Your task to perform on an android device: Open location settings Image 0: 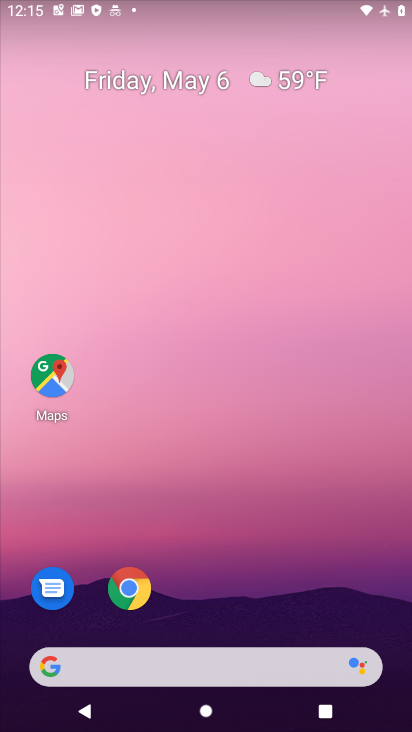
Step 0: drag from (209, 668) to (319, 336)
Your task to perform on an android device: Open location settings Image 1: 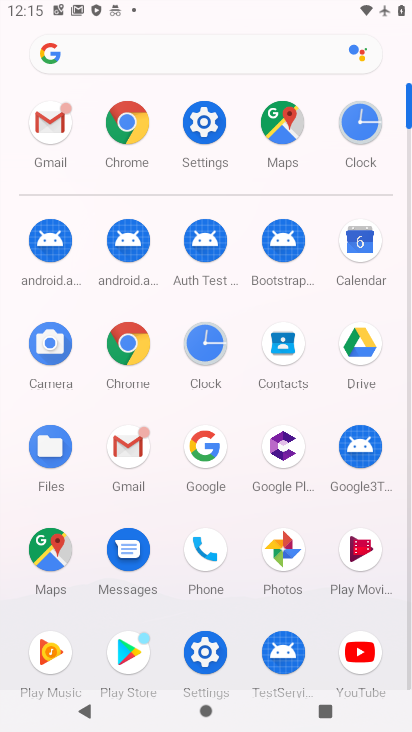
Step 1: click (212, 126)
Your task to perform on an android device: Open location settings Image 2: 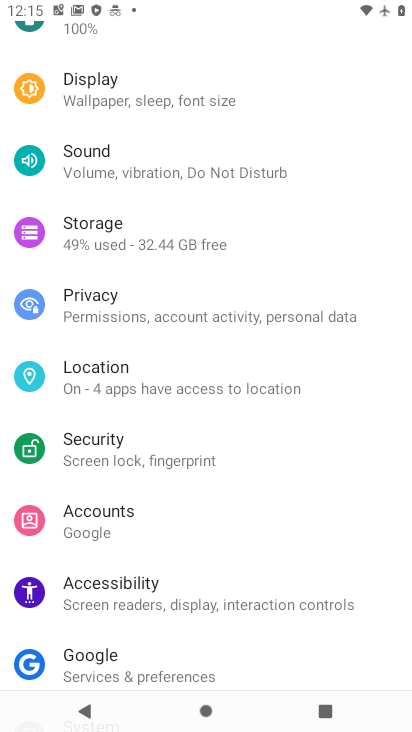
Step 2: click (141, 381)
Your task to perform on an android device: Open location settings Image 3: 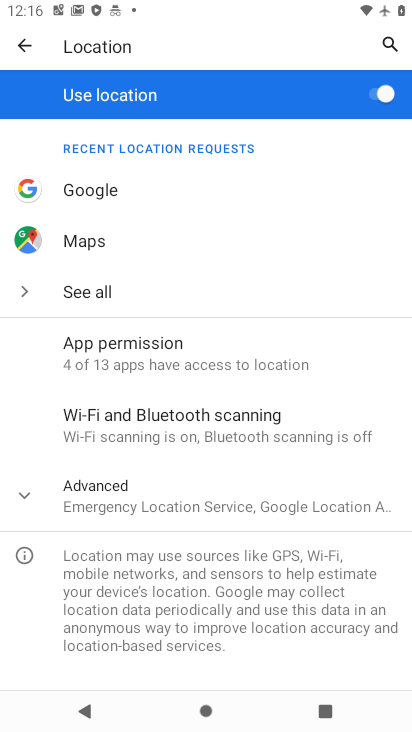
Step 3: task complete